Your task to perform on an android device: Open Google Chrome Image 0: 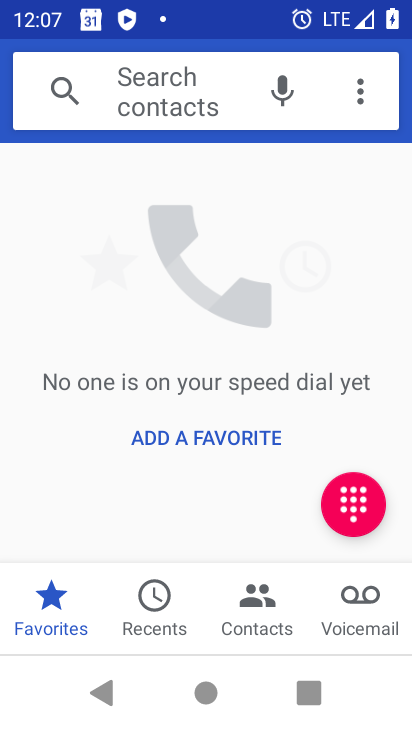
Step 0: press back button
Your task to perform on an android device: Open Google Chrome Image 1: 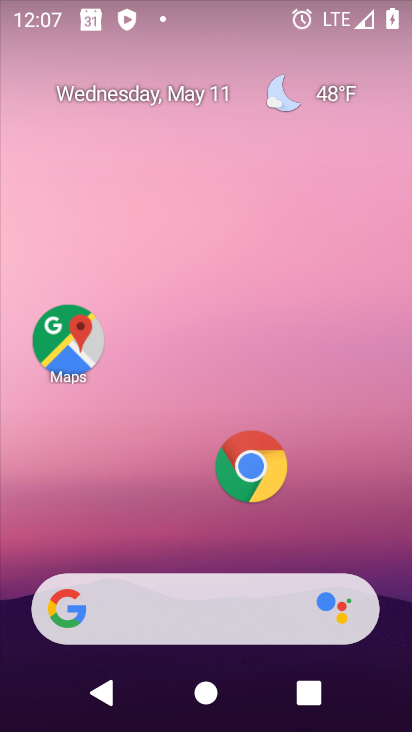
Step 1: click (244, 459)
Your task to perform on an android device: Open Google Chrome Image 2: 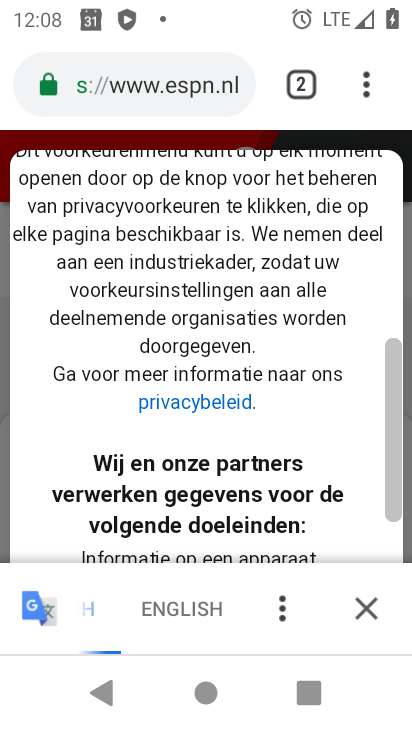
Step 2: task complete